Your task to perform on an android device: Open Chrome and go to the settings page Image 0: 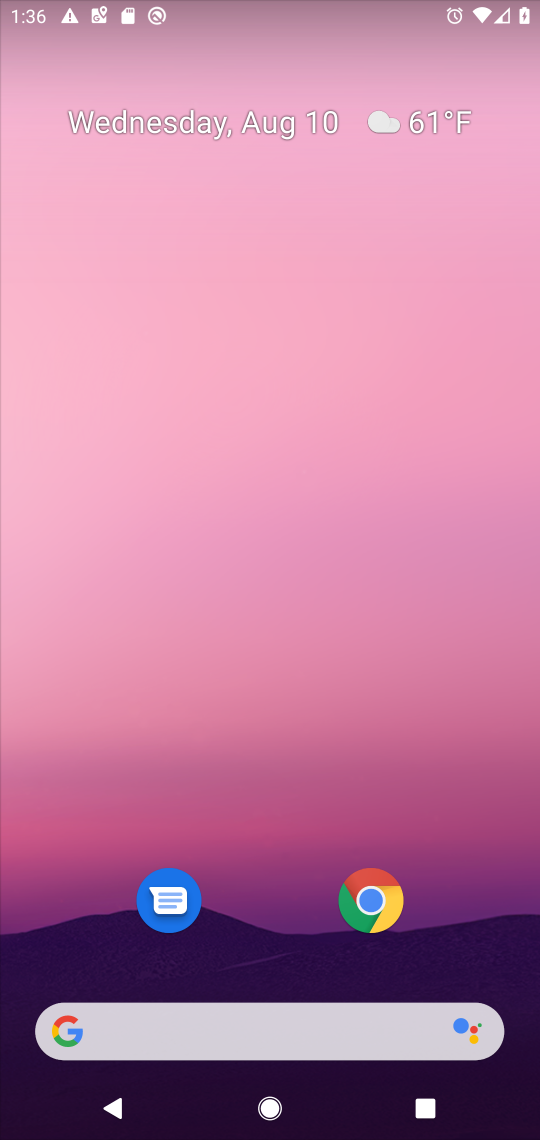
Step 0: click (378, 896)
Your task to perform on an android device: Open Chrome and go to the settings page Image 1: 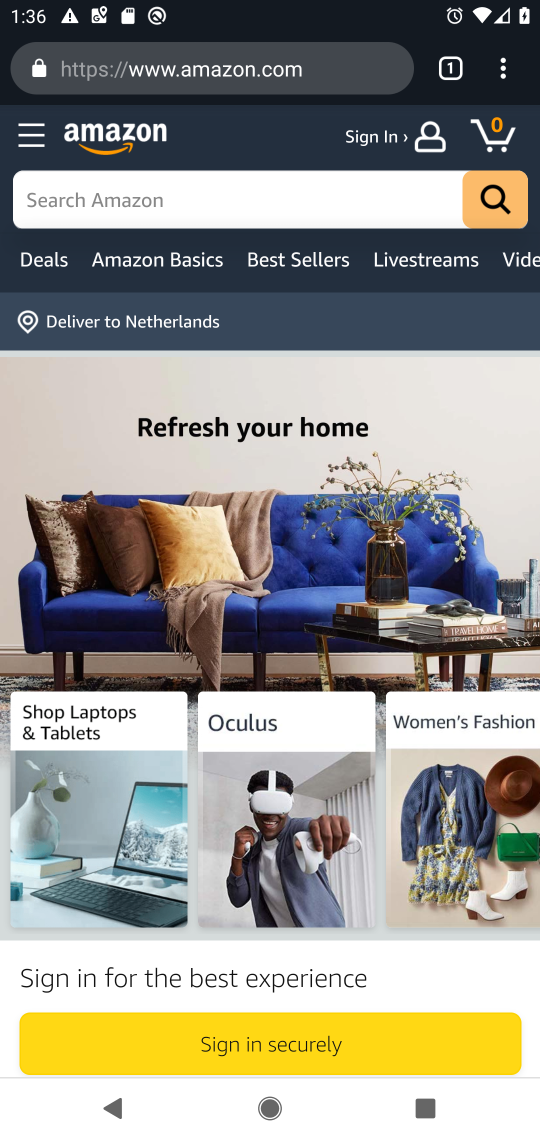
Step 1: click (510, 76)
Your task to perform on an android device: Open Chrome and go to the settings page Image 2: 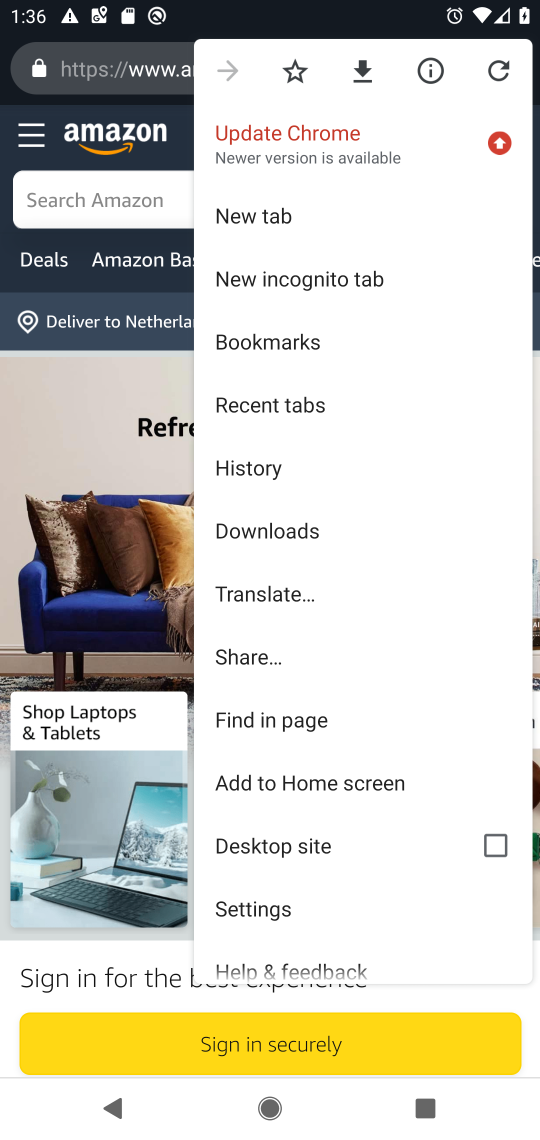
Step 2: click (277, 912)
Your task to perform on an android device: Open Chrome and go to the settings page Image 3: 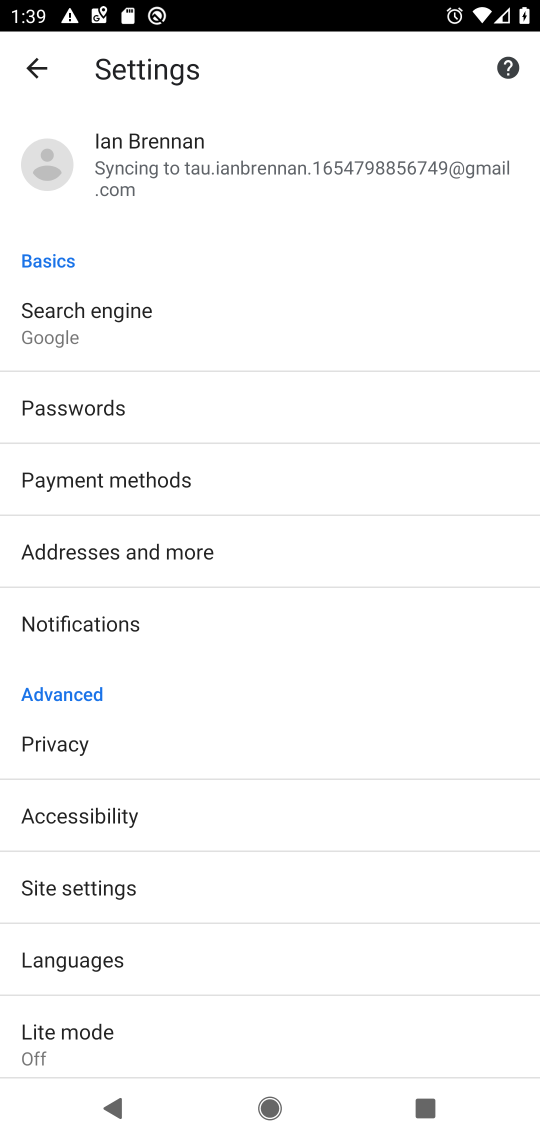
Step 3: task complete